Your task to perform on an android device: uninstall "YouTube Kids" Image 0: 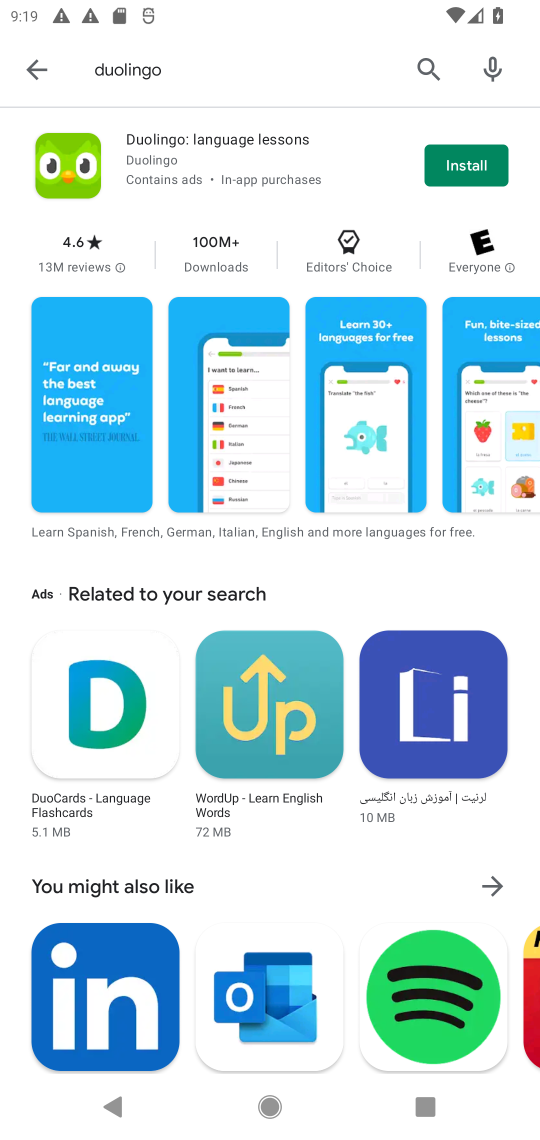
Step 0: press home button
Your task to perform on an android device: uninstall "YouTube Kids" Image 1: 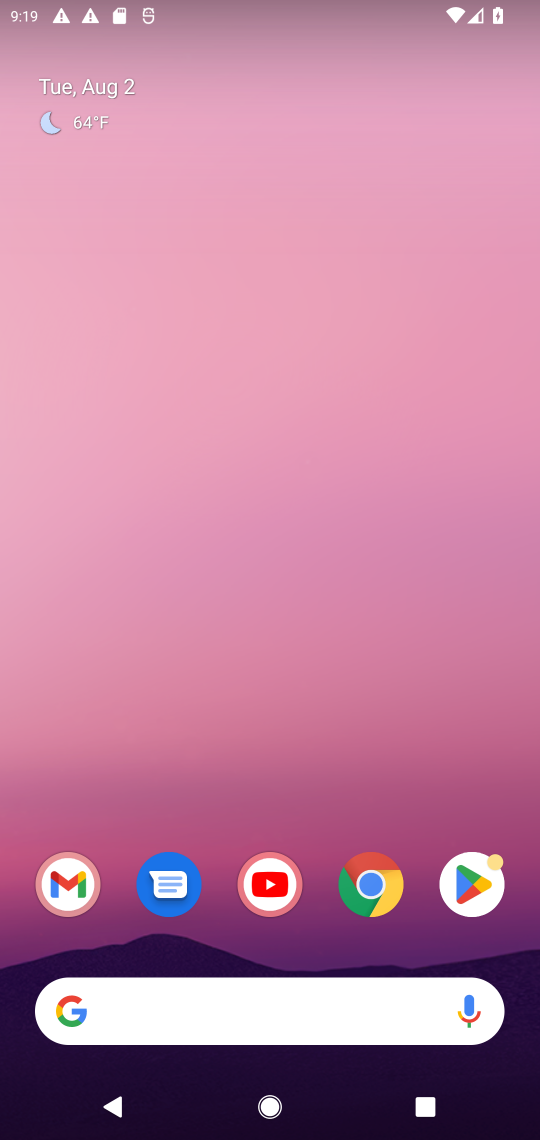
Step 1: click (488, 890)
Your task to perform on an android device: uninstall "YouTube Kids" Image 2: 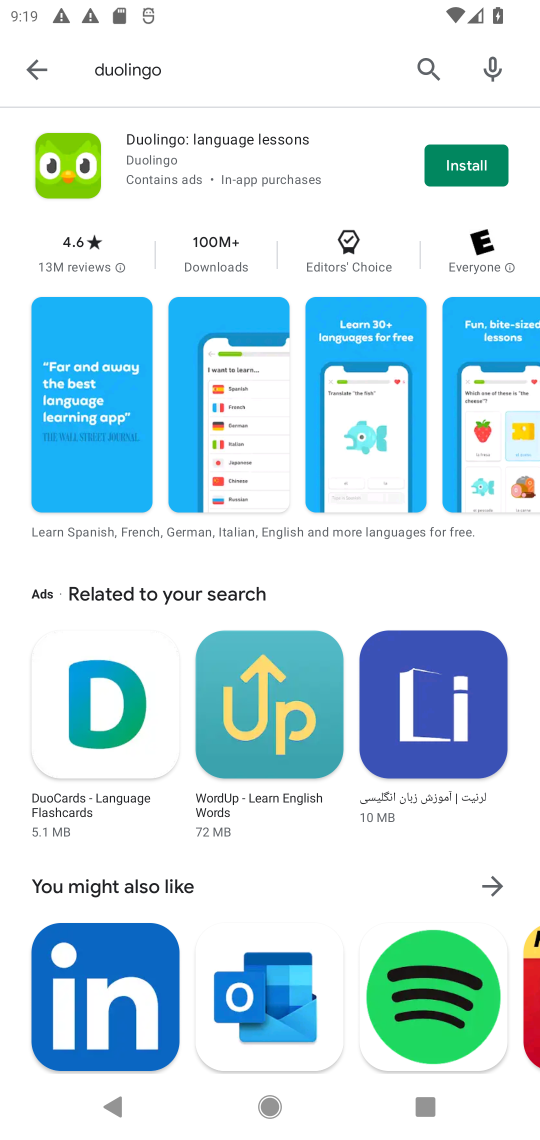
Step 2: click (424, 45)
Your task to perform on an android device: uninstall "YouTube Kids" Image 3: 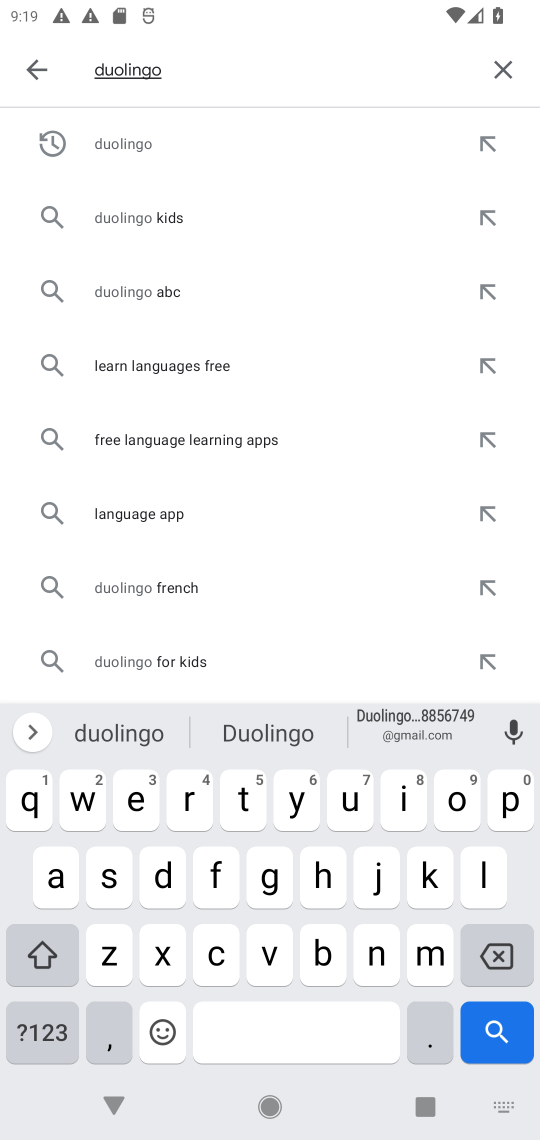
Step 3: click (503, 78)
Your task to perform on an android device: uninstall "YouTube Kids" Image 4: 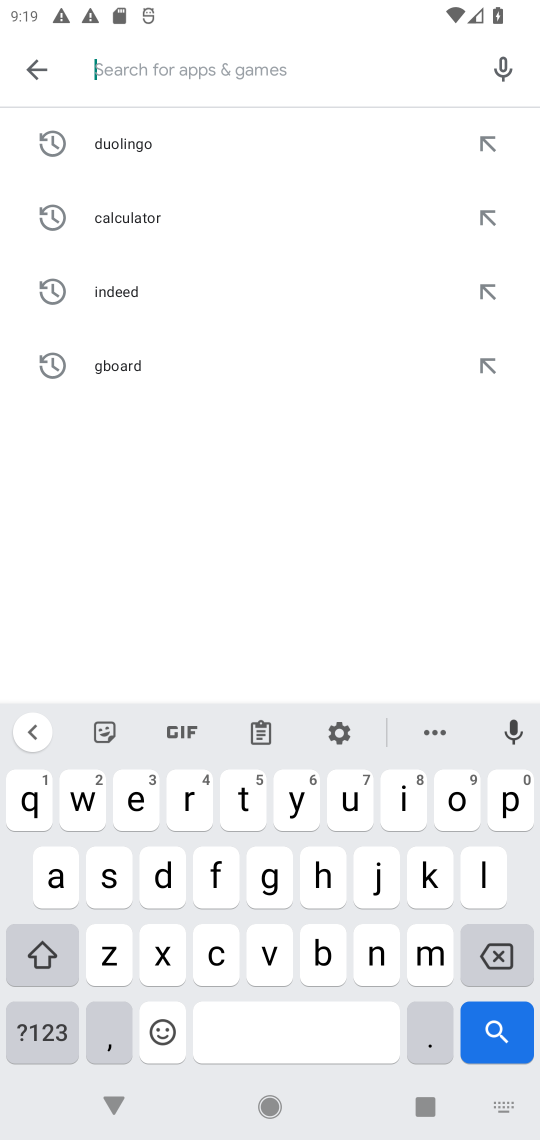
Step 4: click (296, 789)
Your task to perform on an android device: uninstall "YouTube Kids" Image 5: 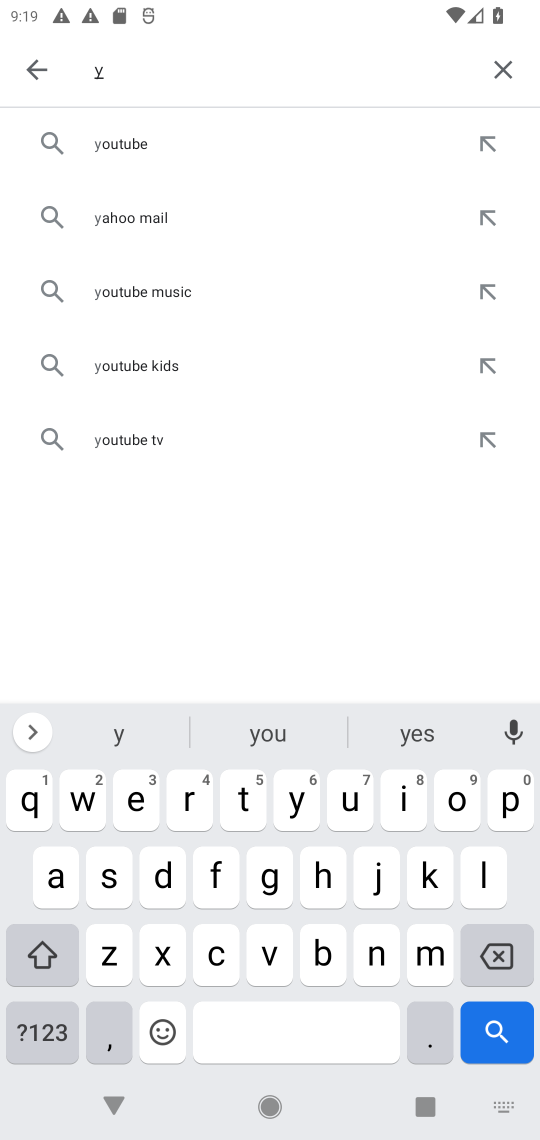
Step 5: click (451, 798)
Your task to perform on an android device: uninstall "YouTube Kids" Image 6: 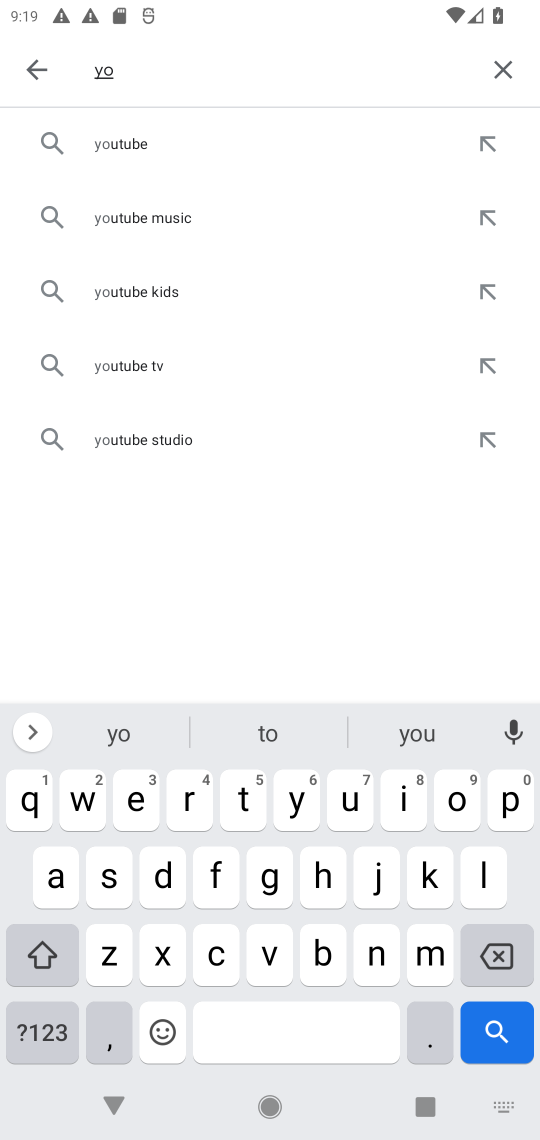
Step 6: click (150, 295)
Your task to perform on an android device: uninstall "YouTube Kids" Image 7: 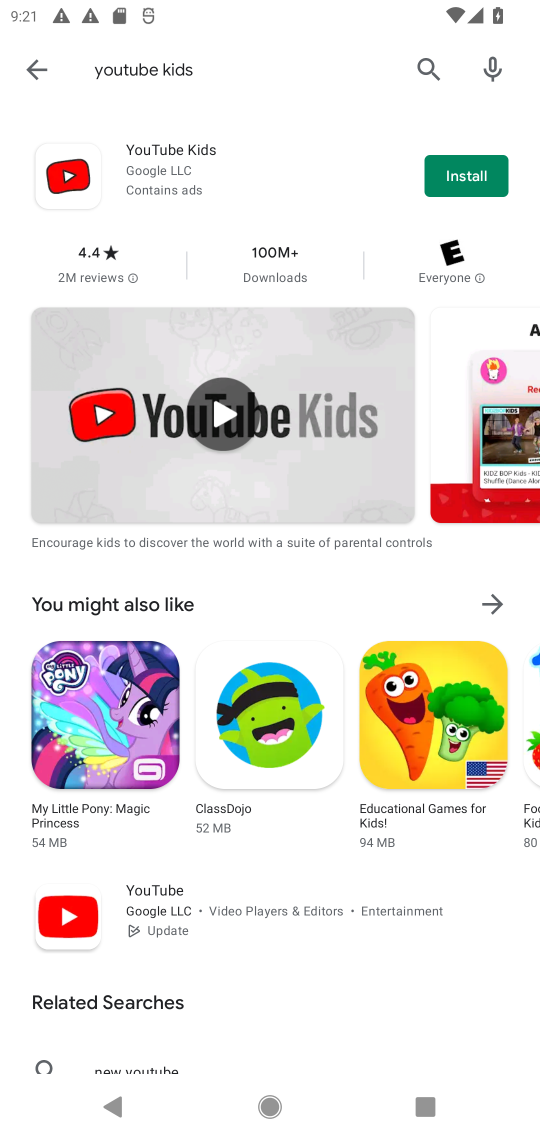
Step 7: task complete